Your task to perform on an android device: Toggle the flashlight Image 0: 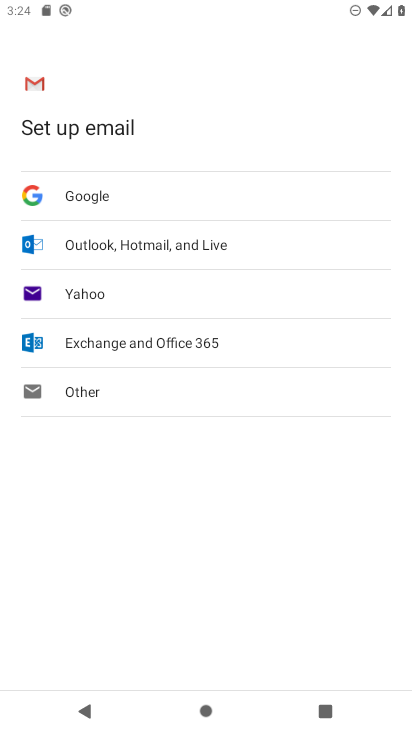
Step 0: drag from (373, 9) to (218, 690)
Your task to perform on an android device: Toggle the flashlight Image 1: 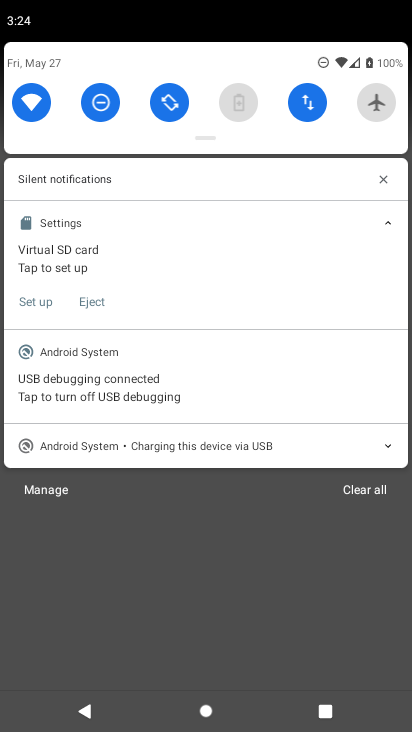
Step 1: drag from (296, 131) to (205, 725)
Your task to perform on an android device: Toggle the flashlight Image 2: 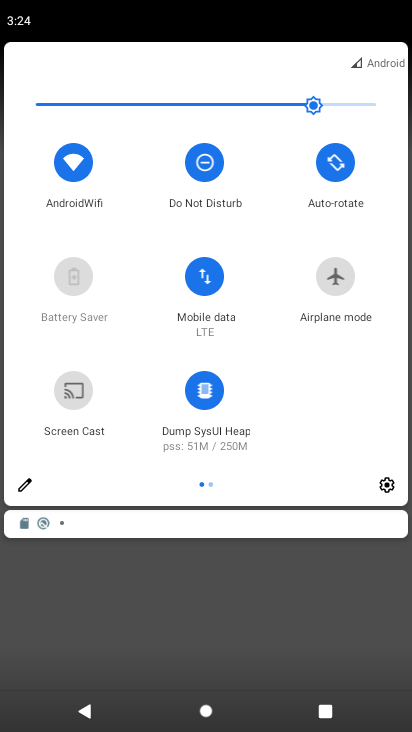
Step 2: click (35, 494)
Your task to perform on an android device: Toggle the flashlight Image 3: 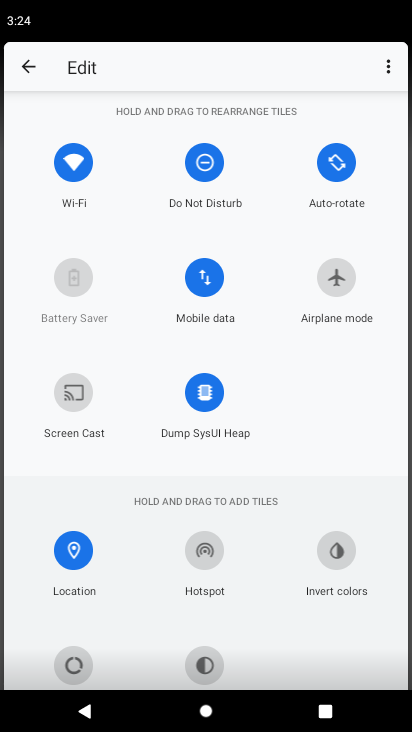
Step 3: task complete